Your task to perform on an android device: toggle notifications settings in the gmail app Image 0: 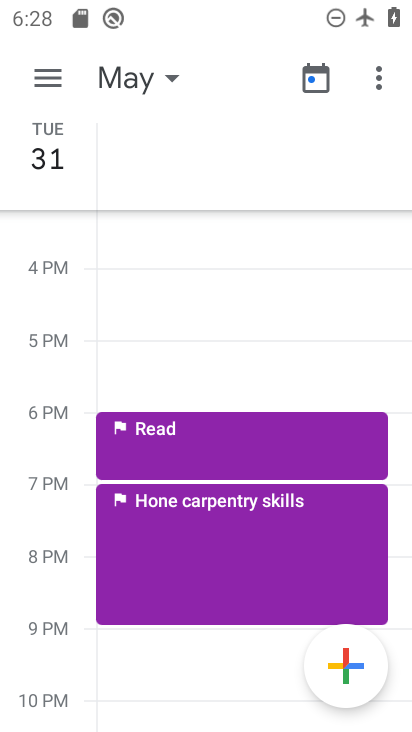
Step 0: press home button
Your task to perform on an android device: toggle notifications settings in the gmail app Image 1: 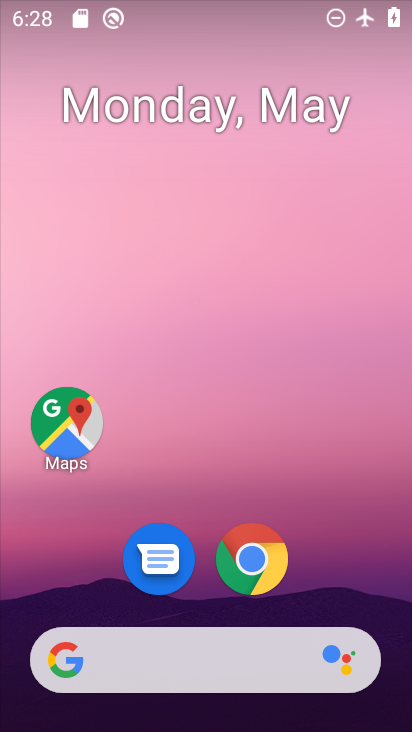
Step 1: drag from (342, 538) to (262, 235)
Your task to perform on an android device: toggle notifications settings in the gmail app Image 2: 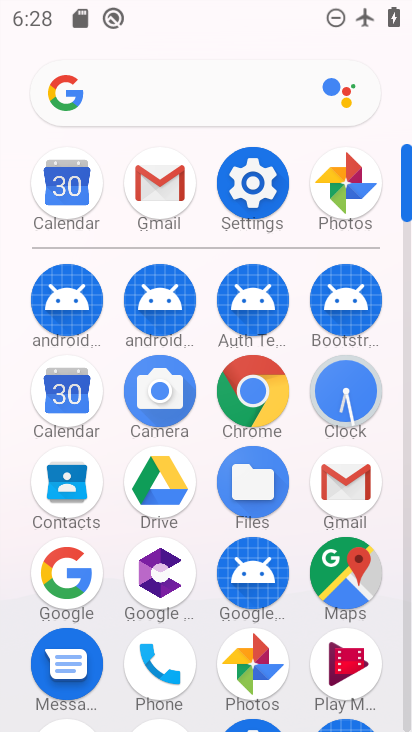
Step 2: click (156, 192)
Your task to perform on an android device: toggle notifications settings in the gmail app Image 3: 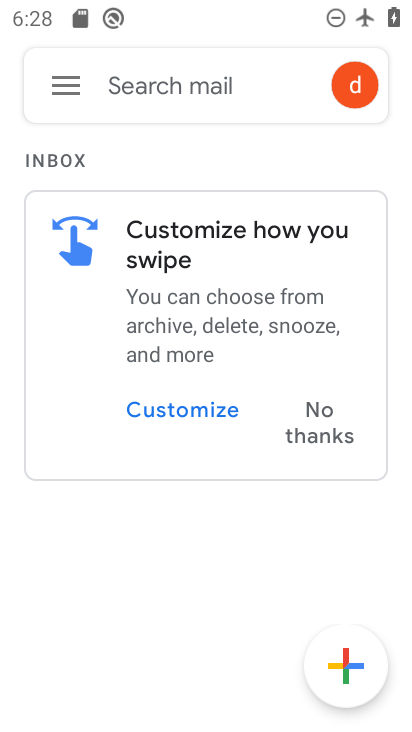
Step 3: click (60, 82)
Your task to perform on an android device: toggle notifications settings in the gmail app Image 4: 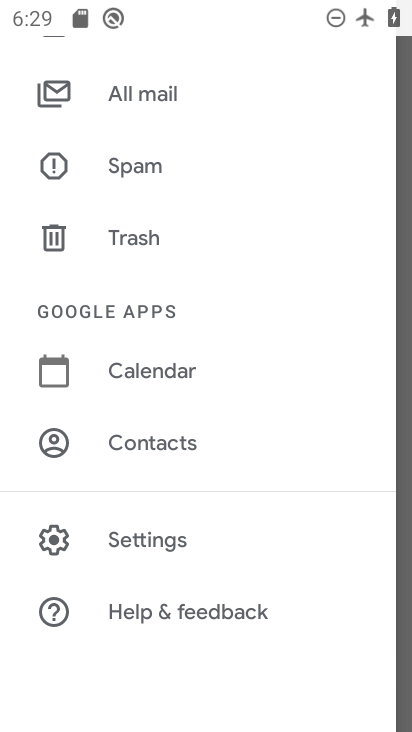
Step 4: click (143, 543)
Your task to perform on an android device: toggle notifications settings in the gmail app Image 5: 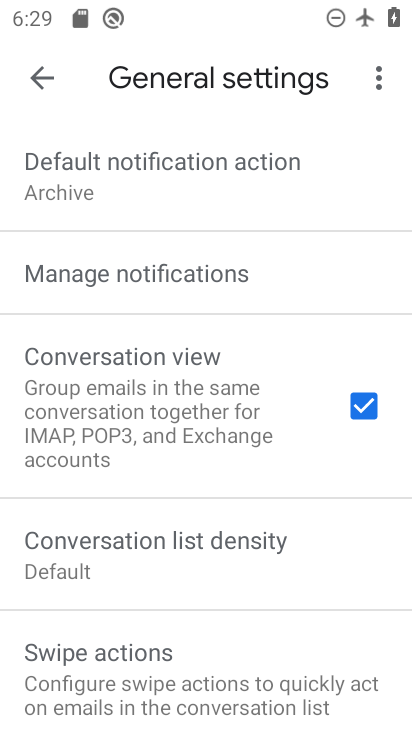
Step 5: click (125, 263)
Your task to perform on an android device: toggle notifications settings in the gmail app Image 6: 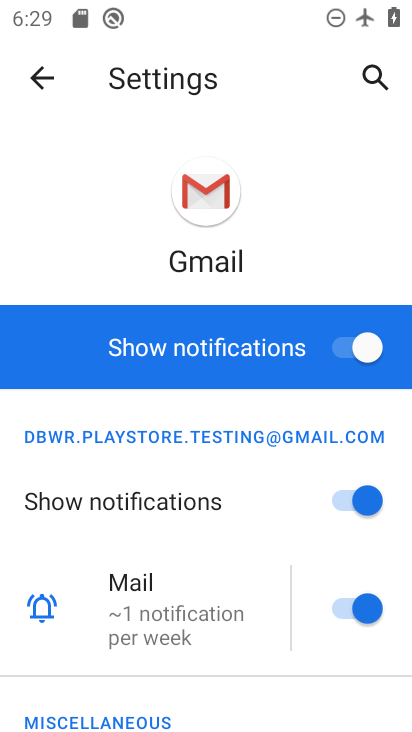
Step 6: click (355, 342)
Your task to perform on an android device: toggle notifications settings in the gmail app Image 7: 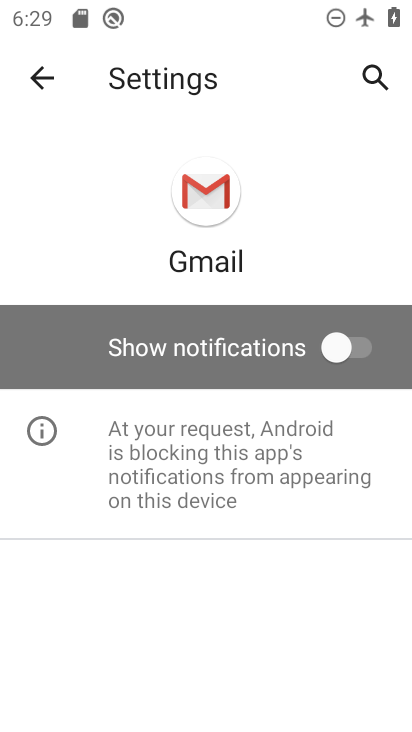
Step 7: task complete